Your task to perform on an android device: clear history in the chrome app Image 0: 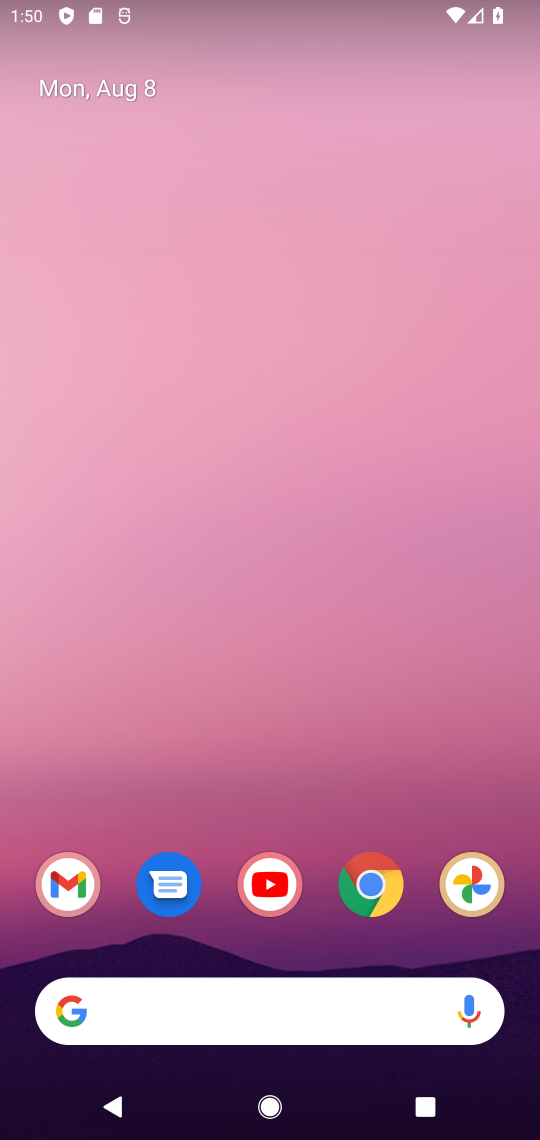
Step 0: click (378, 893)
Your task to perform on an android device: clear history in the chrome app Image 1: 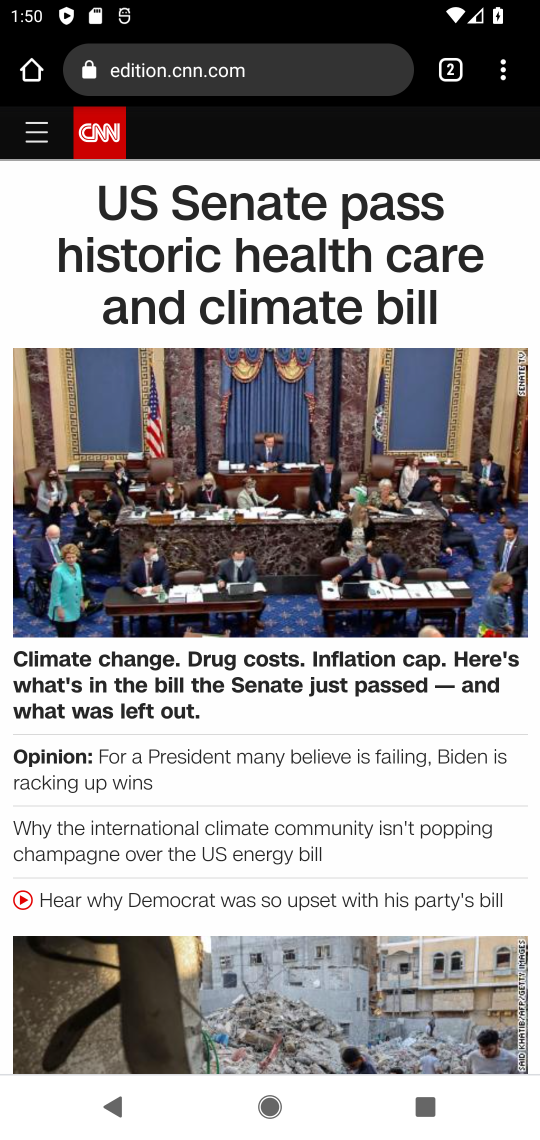
Step 1: click (511, 69)
Your task to perform on an android device: clear history in the chrome app Image 2: 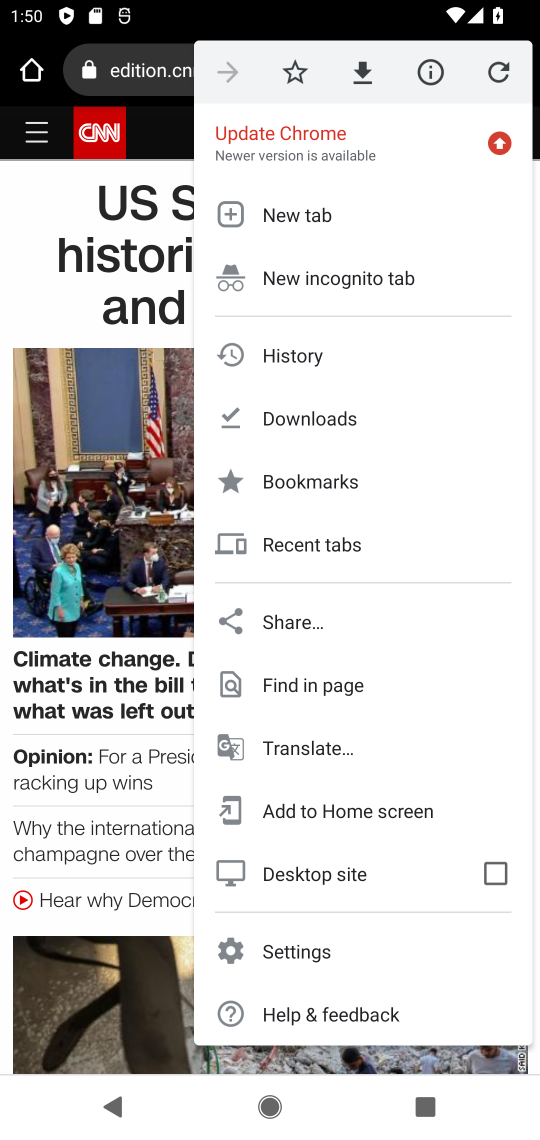
Step 2: click (297, 357)
Your task to perform on an android device: clear history in the chrome app Image 3: 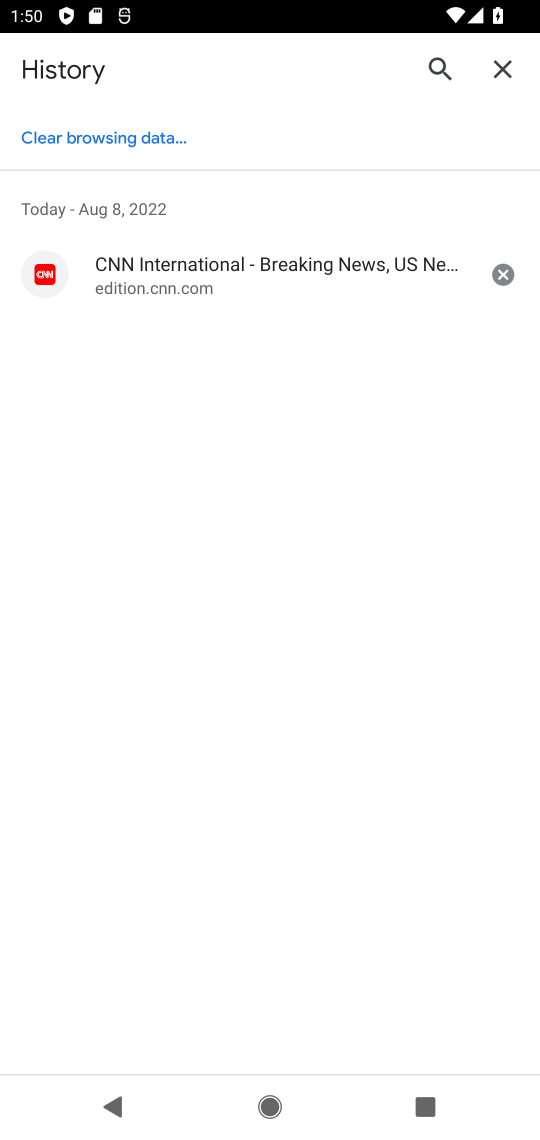
Step 3: click (113, 137)
Your task to perform on an android device: clear history in the chrome app Image 4: 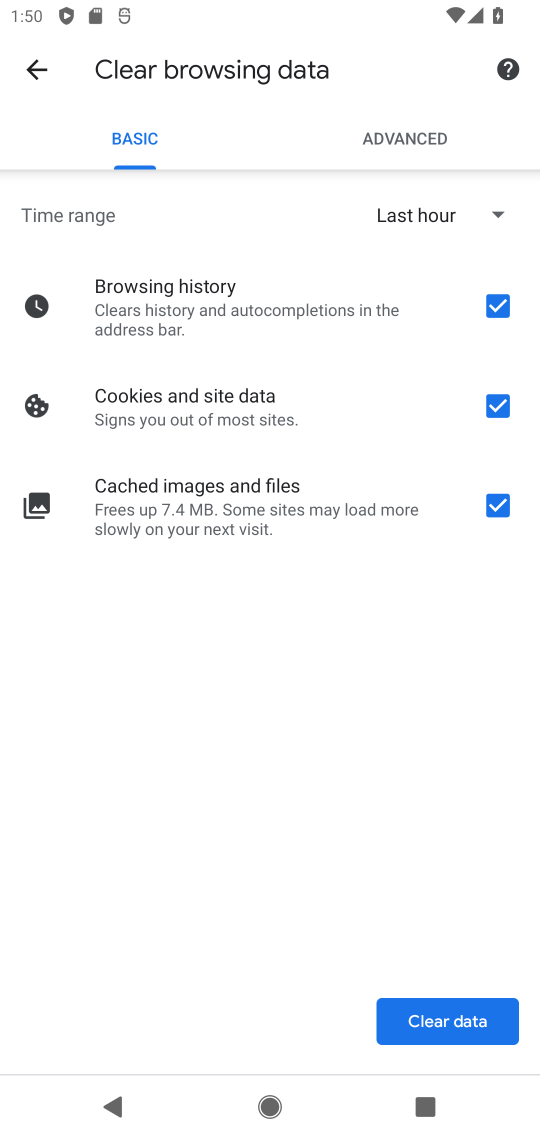
Step 4: click (422, 1023)
Your task to perform on an android device: clear history in the chrome app Image 5: 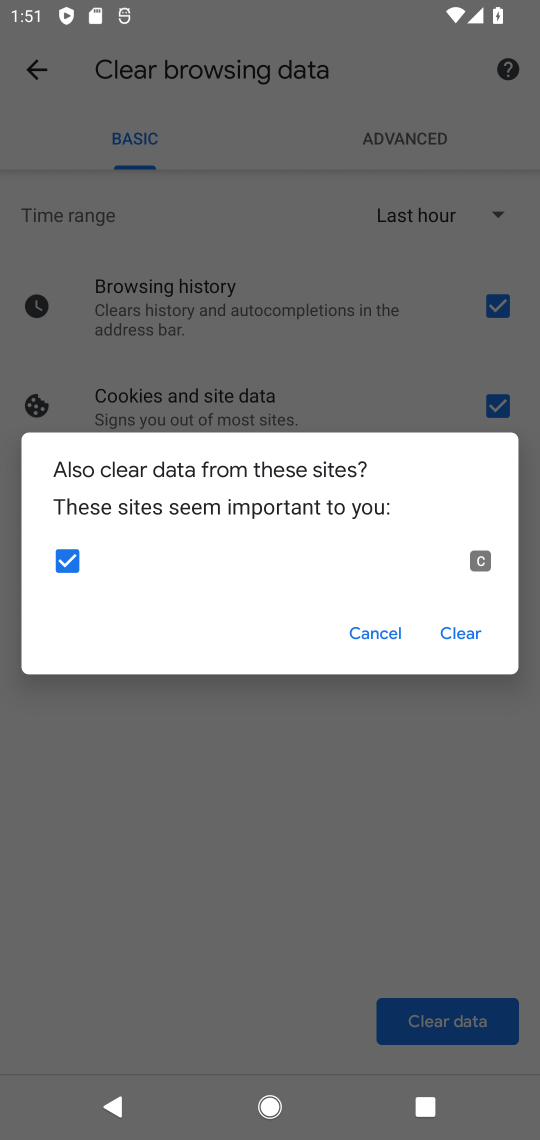
Step 5: click (457, 633)
Your task to perform on an android device: clear history in the chrome app Image 6: 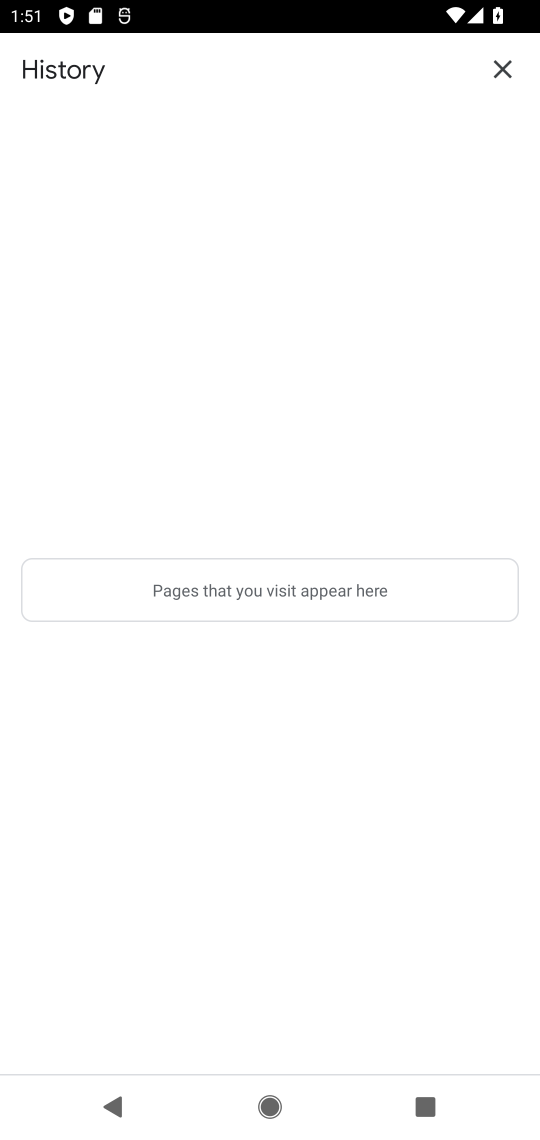
Step 6: task complete